Your task to perform on an android device: turn smart compose on in the gmail app Image 0: 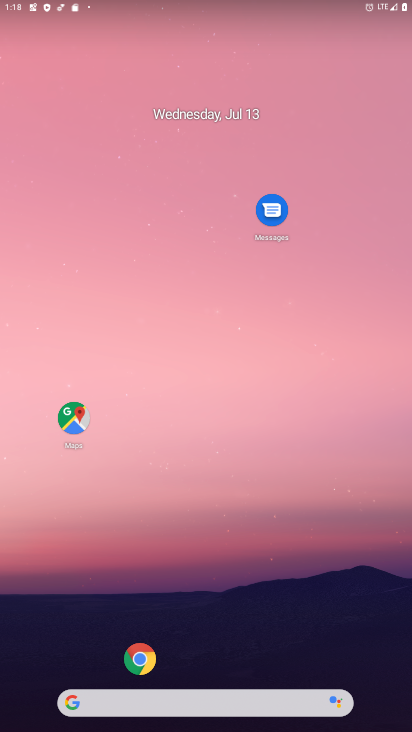
Step 0: click (119, 700)
Your task to perform on an android device: turn smart compose on in the gmail app Image 1: 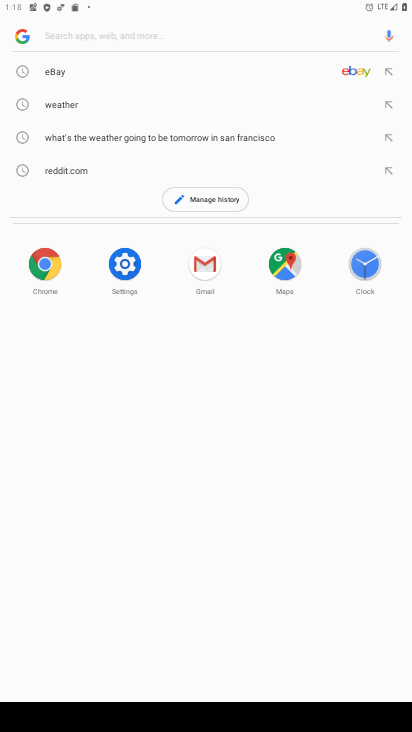
Step 1: press home button
Your task to perform on an android device: turn smart compose on in the gmail app Image 2: 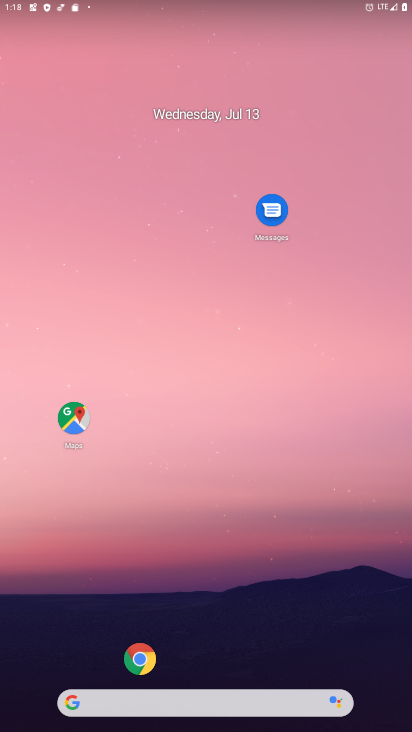
Step 2: drag from (101, 535) to (292, 22)
Your task to perform on an android device: turn smart compose on in the gmail app Image 3: 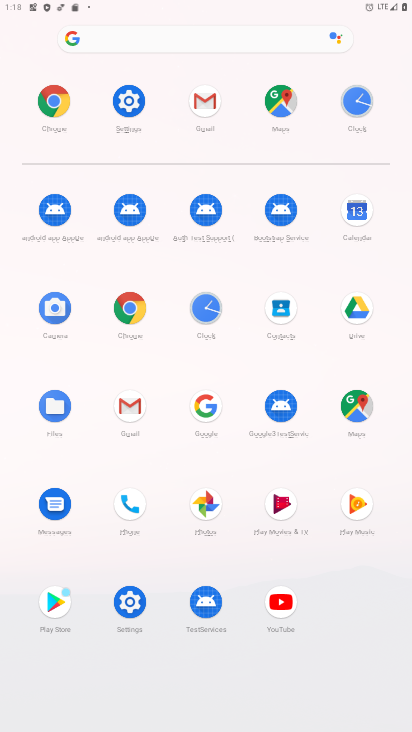
Step 3: click (131, 405)
Your task to perform on an android device: turn smart compose on in the gmail app Image 4: 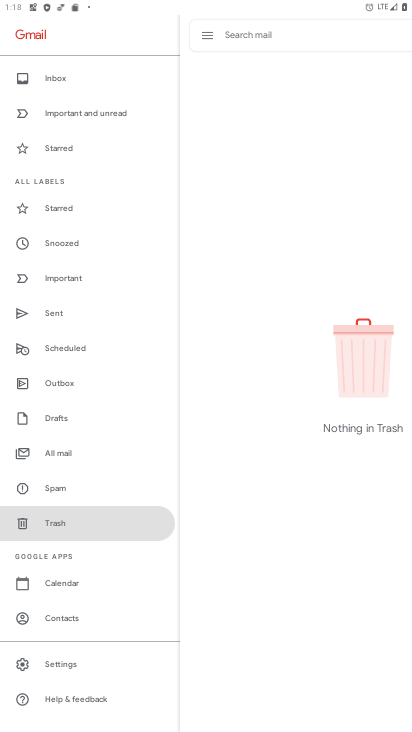
Step 4: click (63, 86)
Your task to perform on an android device: turn smart compose on in the gmail app Image 5: 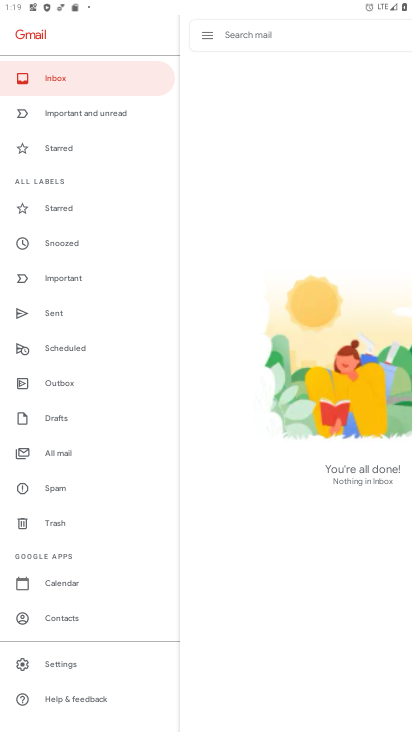
Step 5: click (80, 62)
Your task to perform on an android device: turn smart compose on in the gmail app Image 6: 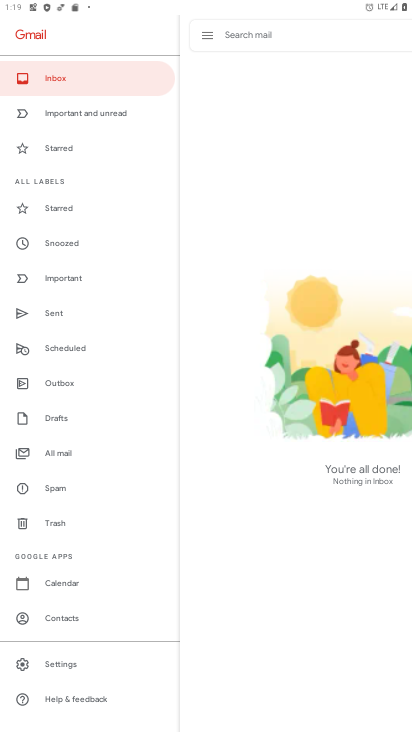
Step 6: task complete